Your task to perform on an android device: find snoozed emails in the gmail app Image 0: 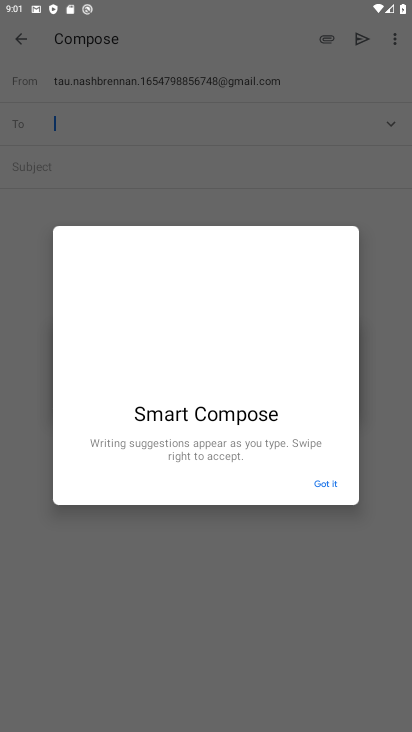
Step 0: press home button
Your task to perform on an android device: find snoozed emails in the gmail app Image 1: 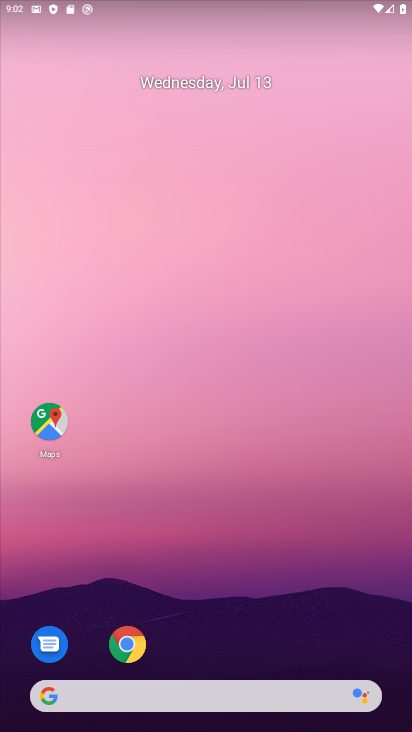
Step 1: drag from (255, 660) to (193, 97)
Your task to perform on an android device: find snoozed emails in the gmail app Image 2: 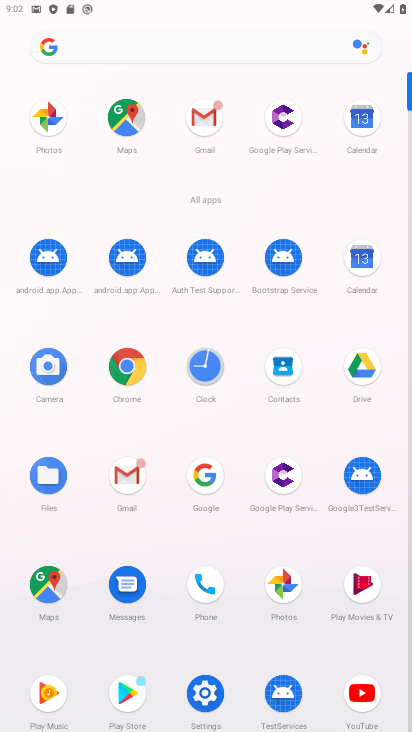
Step 2: click (135, 473)
Your task to perform on an android device: find snoozed emails in the gmail app Image 3: 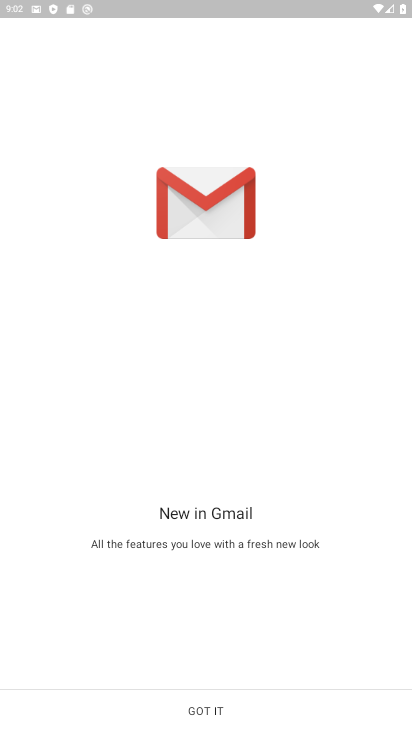
Step 3: click (220, 722)
Your task to perform on an android device: find snoozed emails in the gmail app Image 4: 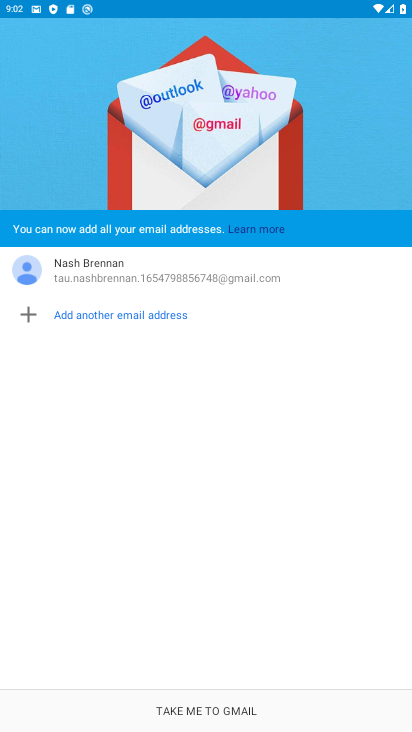
Step 4: click (215, 722)
Your task to perform on an android device: find snoozed emails in the gmail app Image 5: 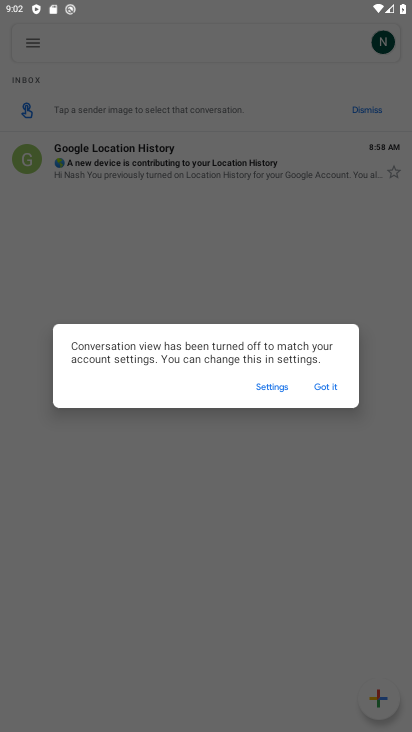
Step 5: click (330, 384)
Your task to perform on an android device: find snoozed emails in the gmail app Image 6: 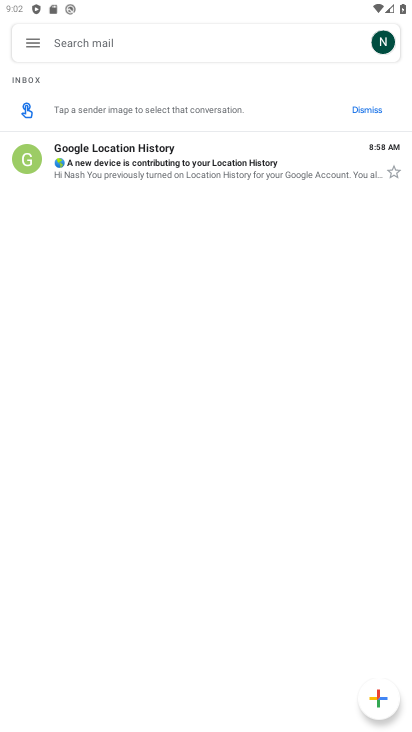
Step 6: click (33, 43)
Your task to perform on an android device: find snoozed emails in the gmail app Image 7: 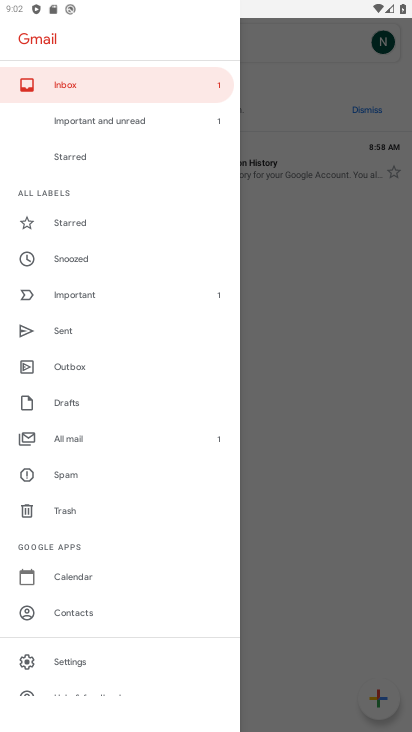
Step 7: click (81, 261)
Your task to perform on an android device: find snoozed emails in the gmail app Image 8: 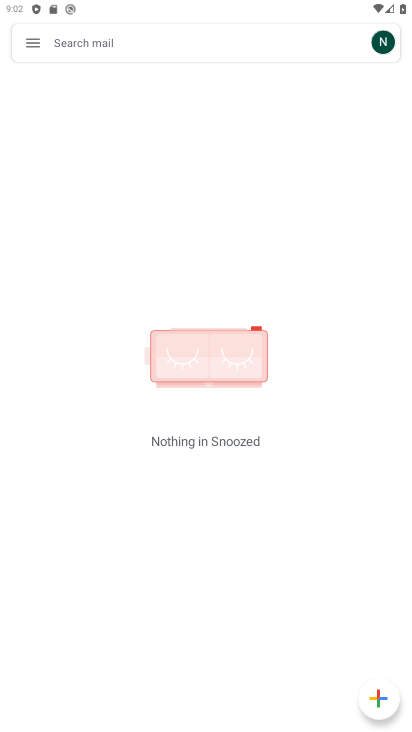
Step 8: task complete